Your task to perform on an android device: Go to privacy settings Image 0: 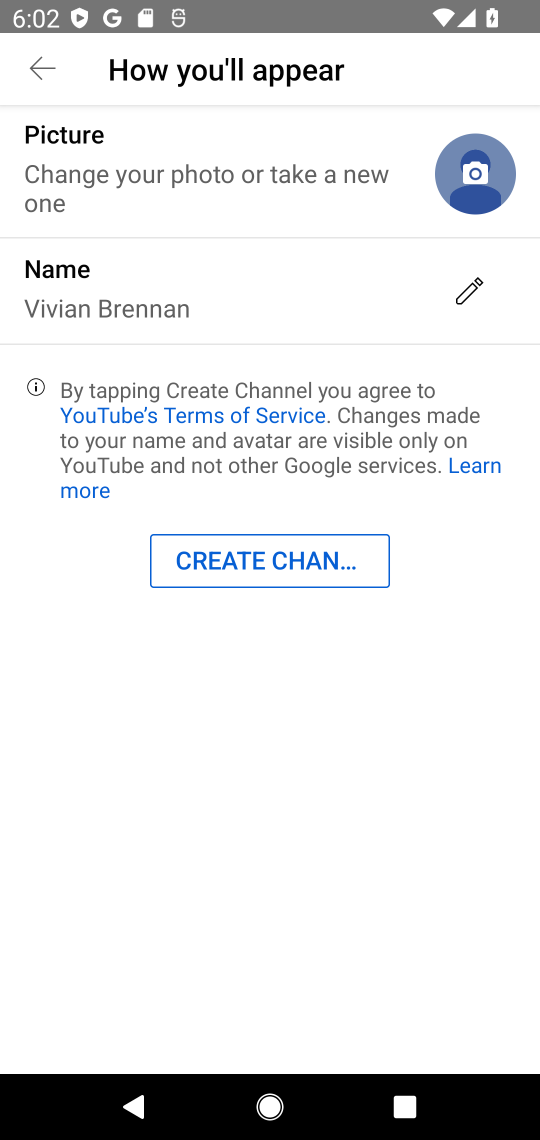
Step 0: press home button
Your task to perform on an android device: Go to privacy settings Image 1: 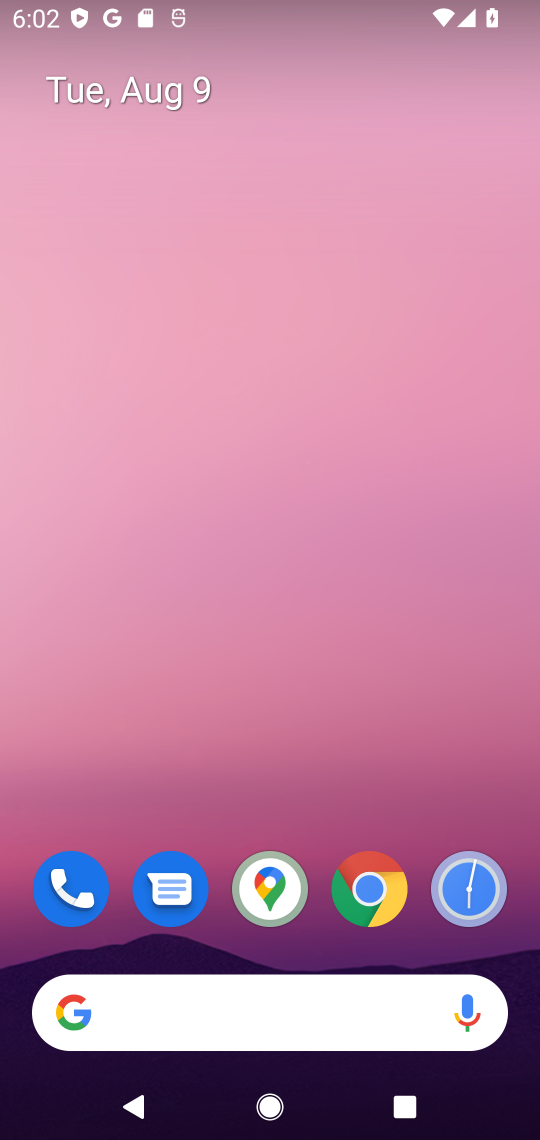
Step 1: drag from (348, 1013) to (159, 196)
Your task to perform on an android device: Go to privacy settings Image 2: 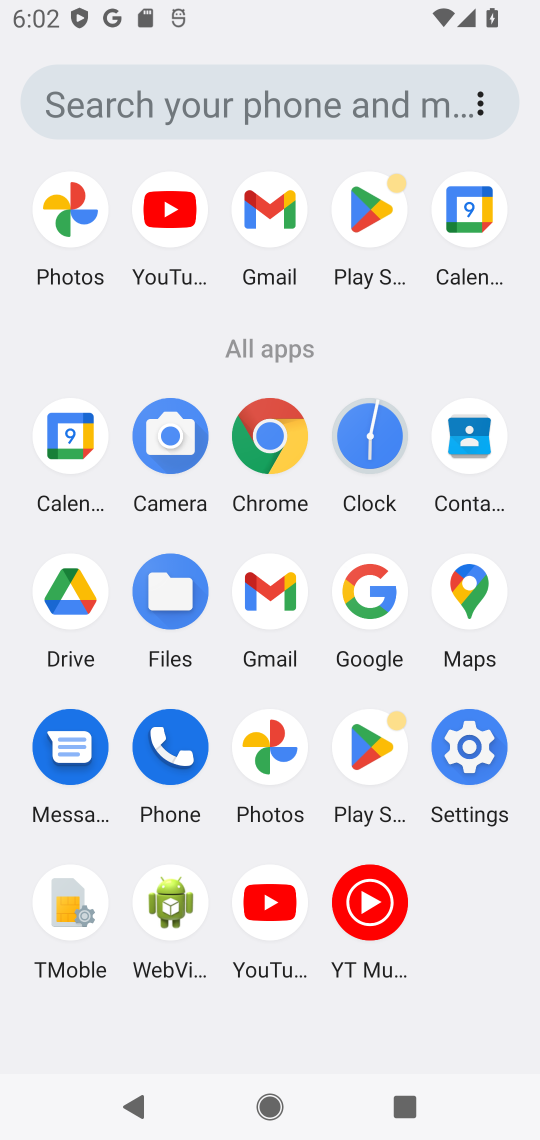
Step 2: click (456, 741)
Your task to perform on an android device: Go to privacy settings Image 3: 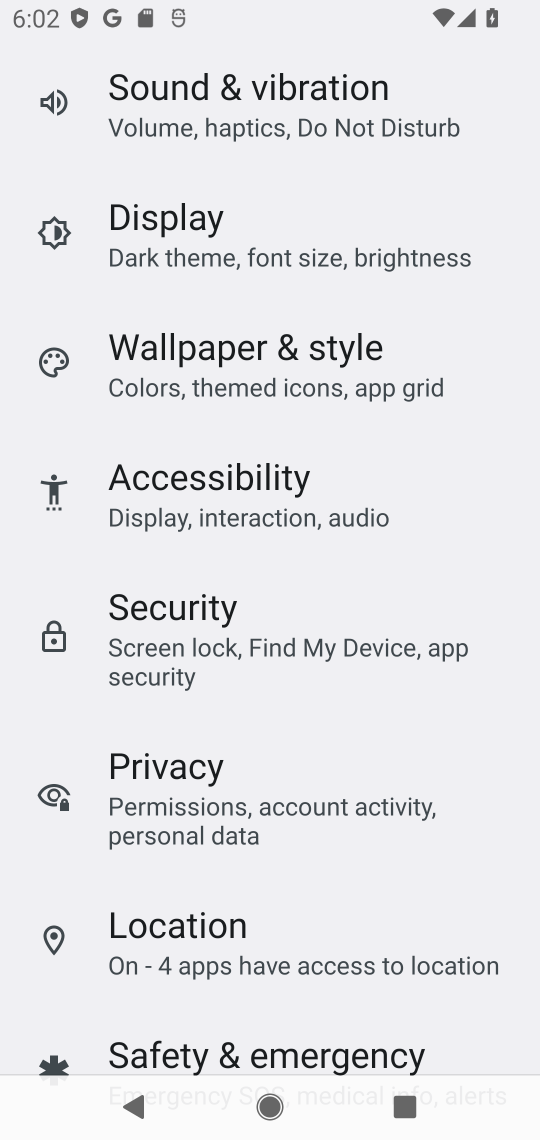
Step 3: click (240, 796)
Your task to perform on an android device: Go to privacy settings Image 4: 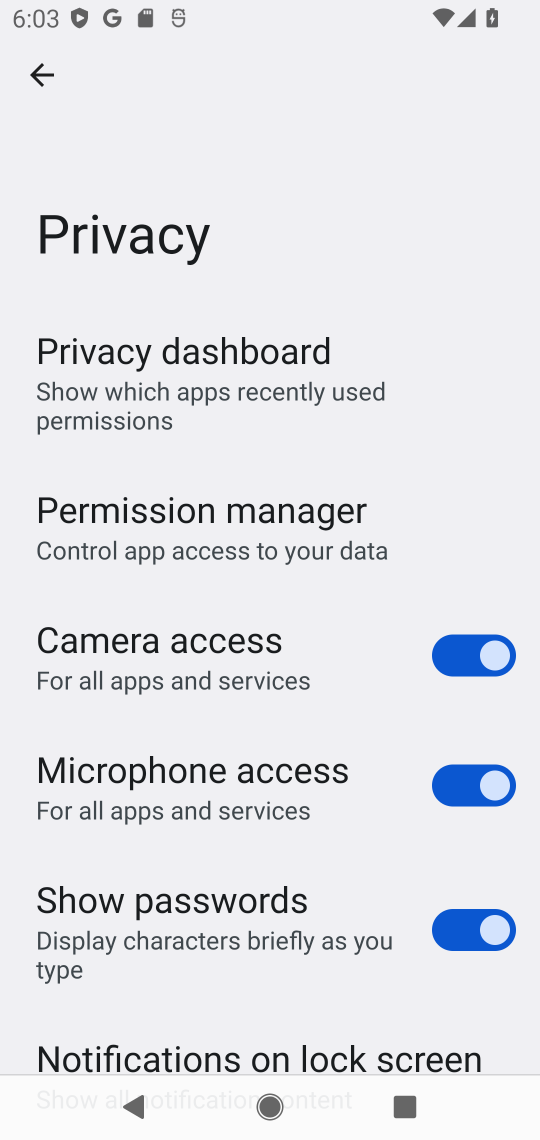
Step 4: task complete